Your task to perform on an android device: turn on sleep mode Image 0: 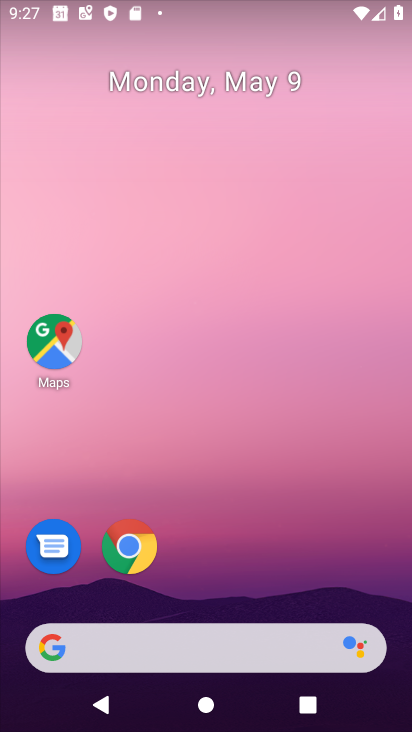
Step 0: drag from (253, 709) to (297, 23)
Your task to perform on an android device: turn on sleep mode Image 1: 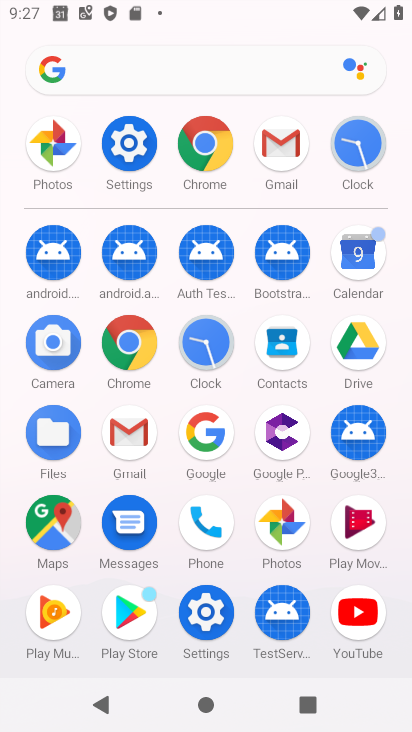
Step 1: click (120, 140)
Your task to perform on an android device: turn on sleep mode Image 2: 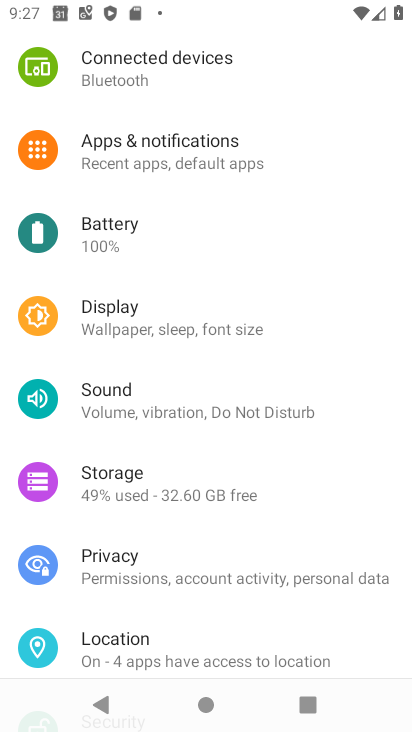
Step 2: click (253, 322)
Your task to perform on an android device: turn on sleep mode Image 3: 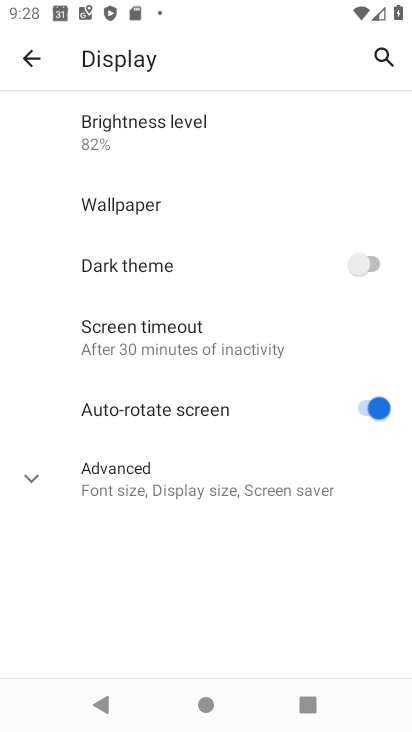
Step 3: task complete